Your task to perform on an android device: move a message to another label in the gmail app Image 0: 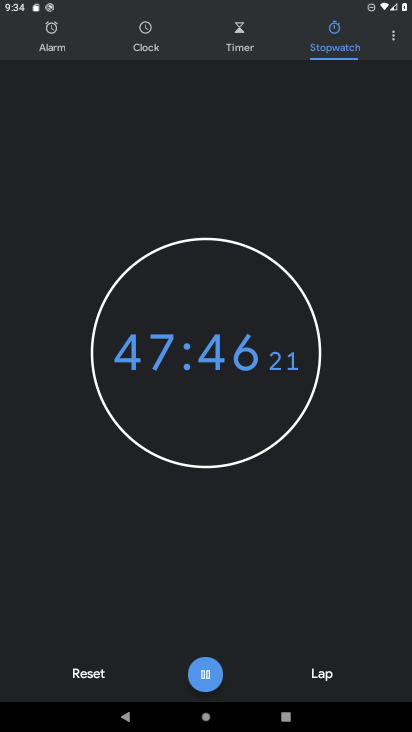
Step 0: press home button
Your task to perform on an android device: move a message to another label in the gmail app Image 1: 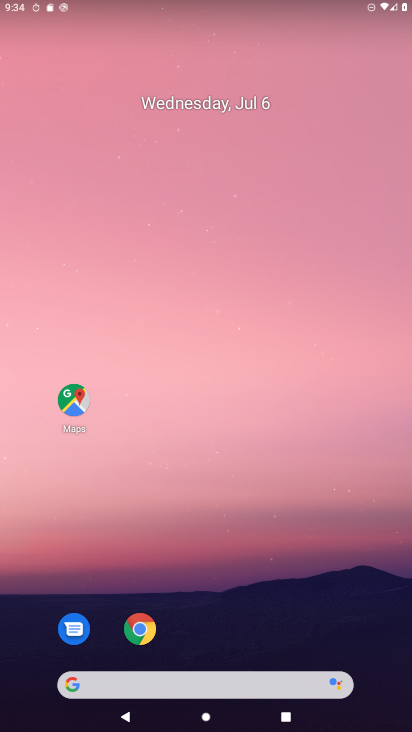
Step 1: drag from (238, 726) to (224, 152)
Your task to perform on an android device: move a message to another label in the gmail app Image 2: 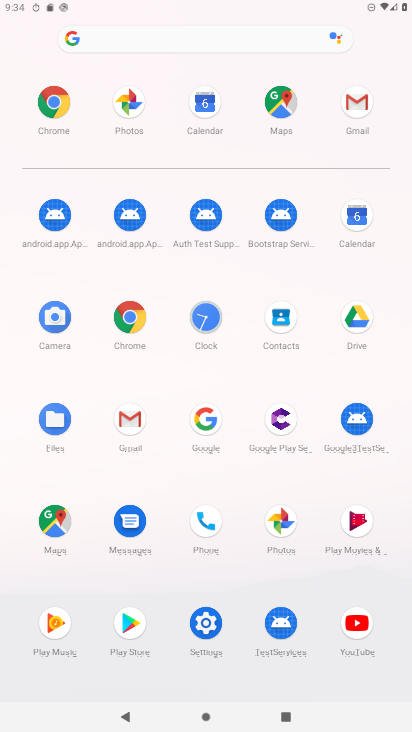
Step 2: click (129, 420)
Your task to perform on an android device: move a message to another label in the gmail app Image 3: 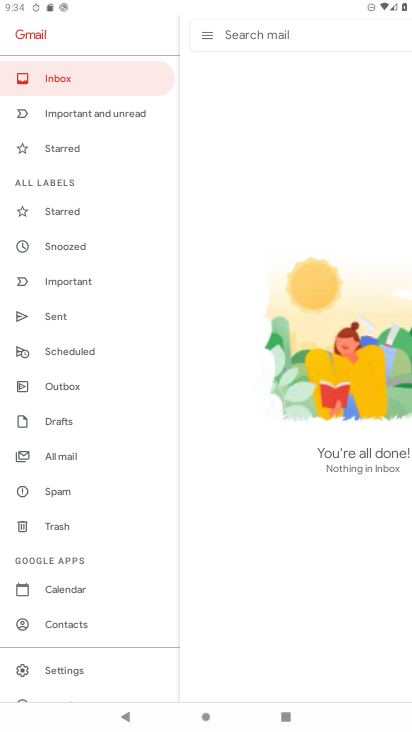
Step 3: click (52, 77)
Your task to perform on an android device: move a message to another label in the gmail app Image 4: 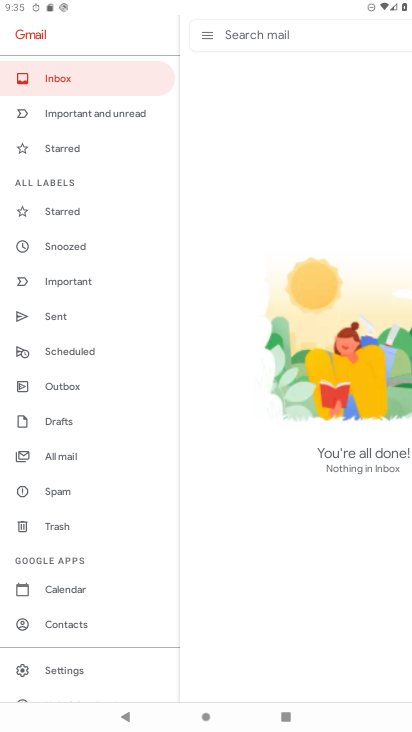
Step 4: task complete